Your task to perform on an android device: toggle translation in the chrome app Image 0: 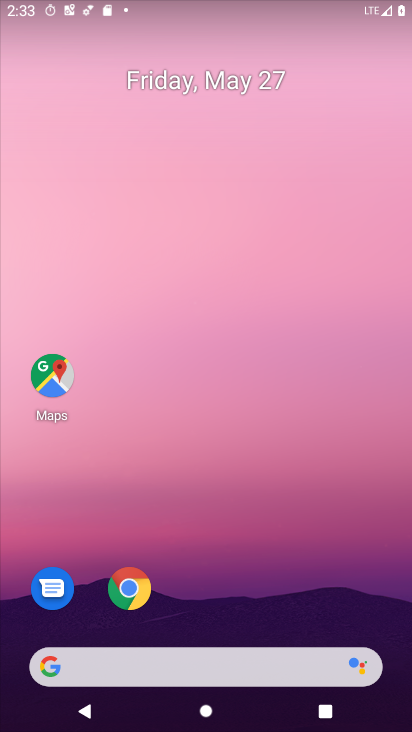
Step 0: click (127, 585)
Your task to perform on an android device: toggle translation in the chrome app Image 1: 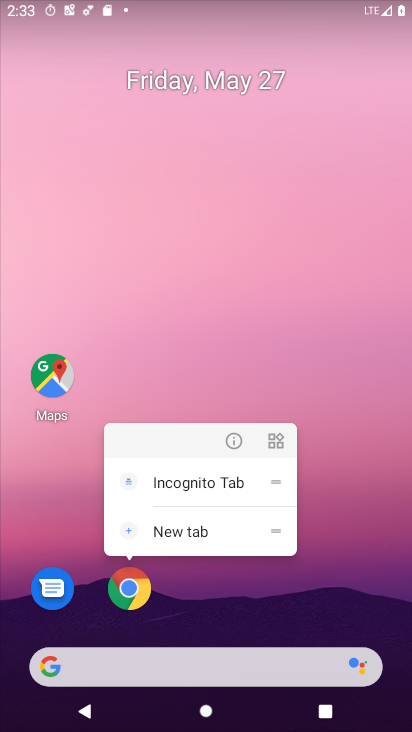
Step 1: click (127, 585)
Your task to perform on an android device: toggle translation in the chrome app Image 2: 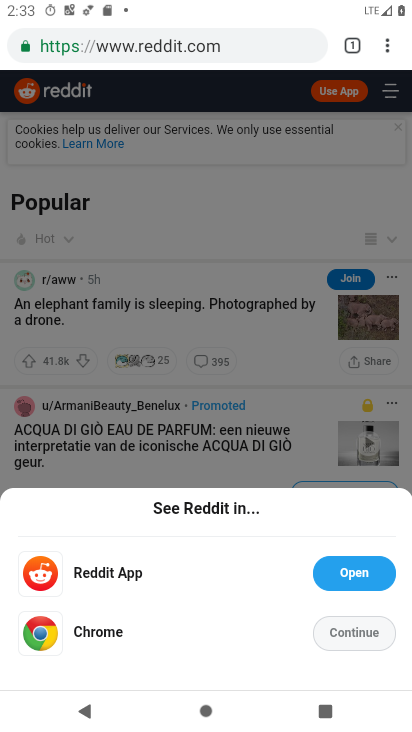
Step 2: click (390, 47)
Your task to perform on an android device: toggle translation in the chrome app Image 3: 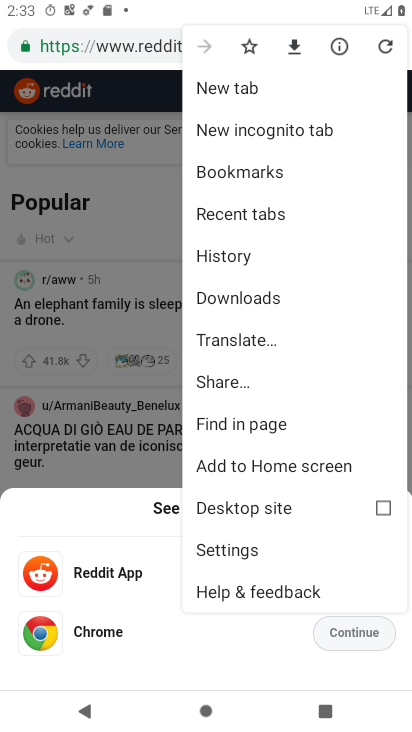
Step 3: click (286, 557)
Your task to perform on an android device: toggle translation in the chrome app Image 4: 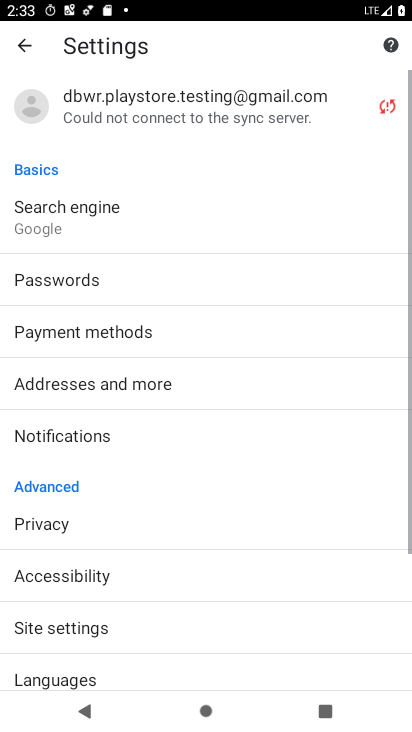
Step 4: drag from (203, 612) to (199, 377)
Your task to perform on an android device: toggle translation in the chrome app Image 5: 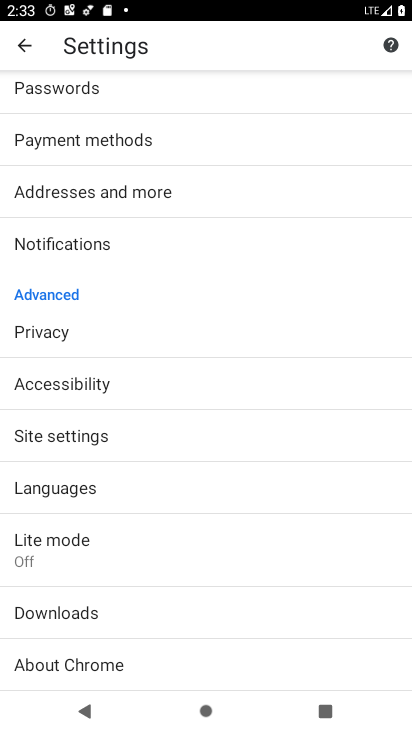
Step 5: click (63, 485)
Your task to perform on an android device: toggle translation in the chrome app Image 6: 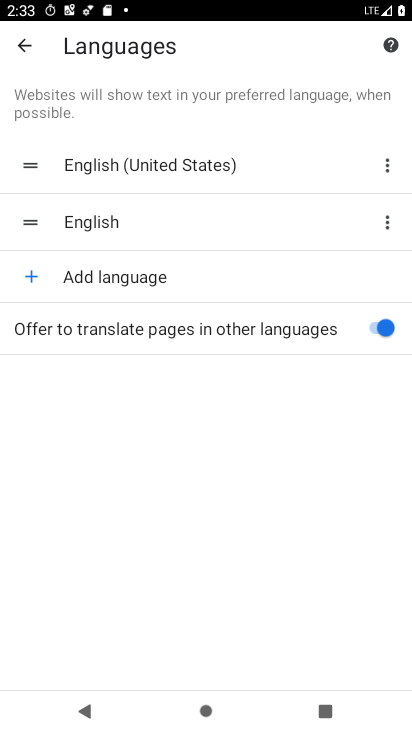
Step 6: click (371, 336)
Your task to perform on an android device: toggle translation in the chrome app Image 7: 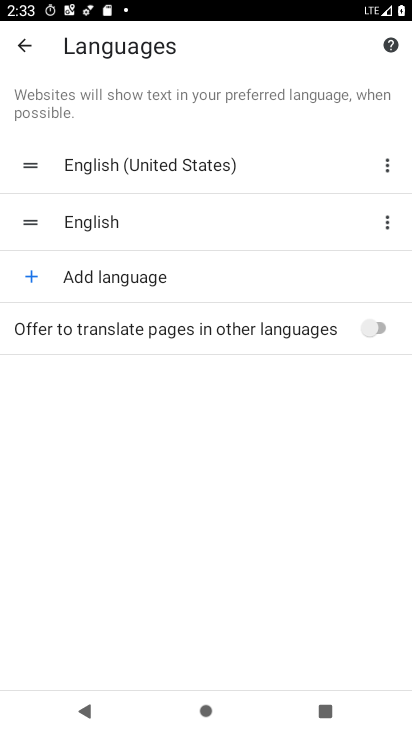
Step 7: task complete